Your task to perform on an android device: delete the emails in spam in the gmail app Image 0: 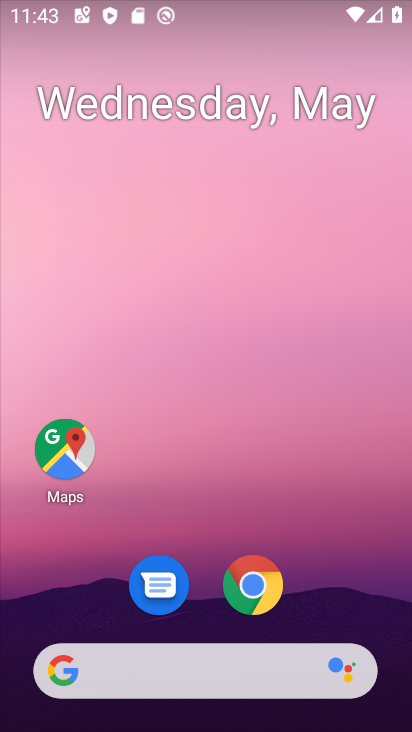
Step 0: drag from (224, 499) to (265, 38)
Your task to perform on an android device: delete the emails in spam in the gmail app Image 1: 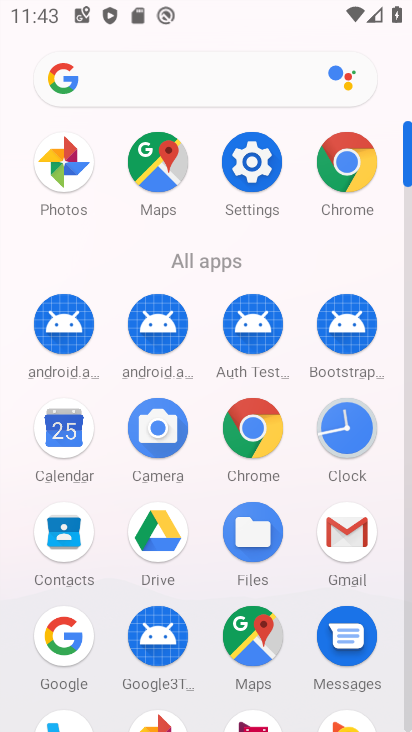
Step 1: drag from (201, 481) to (210, 208)
Your task to perform on an android device: delete the emails in spam in the gmail app Image 2: 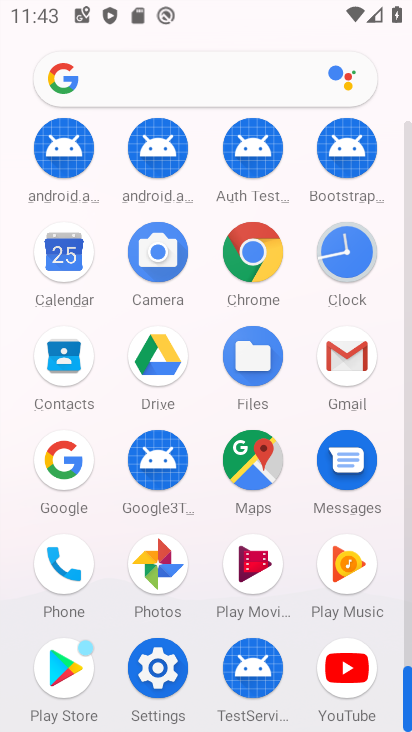
Step 2: click (337, 352)
Your task to perform on an android device: delete the emails in spam in the gmail app Image 3: 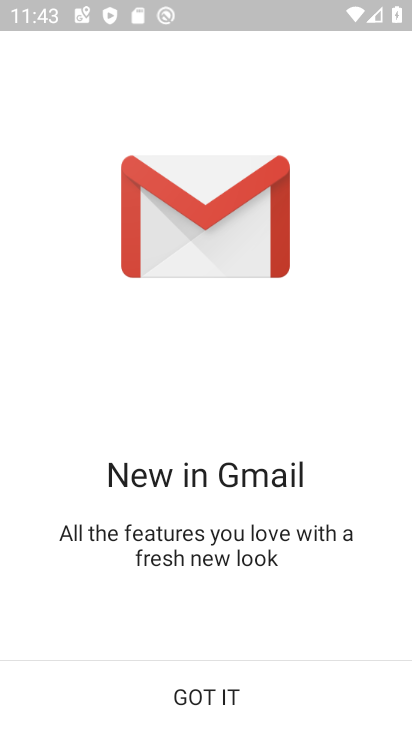
Step 3: click (250, 685)
Your task to perform on an android device: delete the emails in spam in the gmail app Image 4: 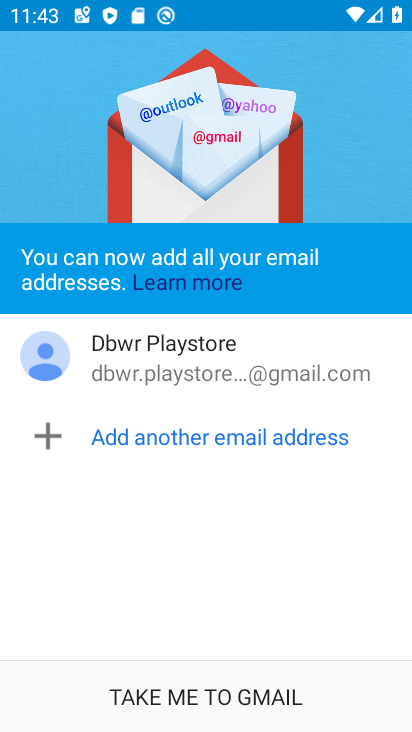
Step 4: click (250, 685)
Your task to perform on an android device: delete the emails in spam in the gmail app Image 5: 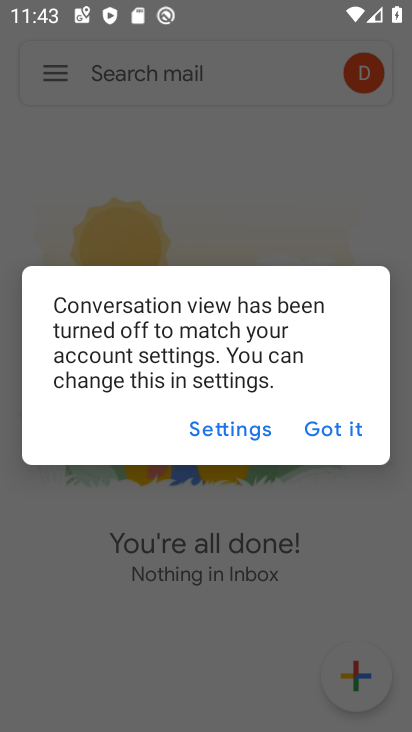
Step 5: click (348, 431)
Your task to perform on an android device: delete the emails in spam in the gmail app Image 6: 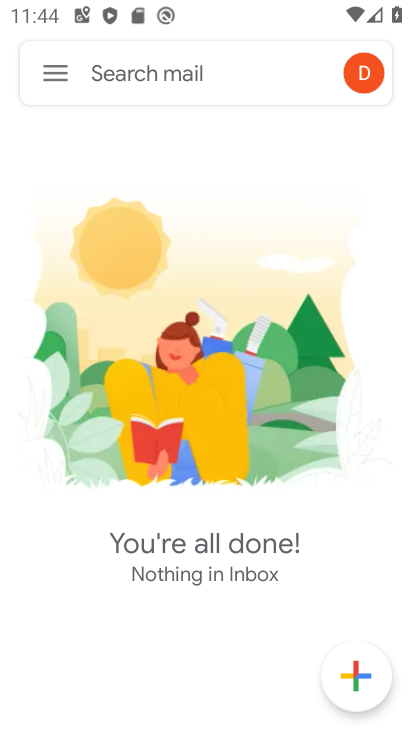
Step 6: click (56, 71)
Your task to perform on an android device: delete the emails in spam in the gmail app Image 7: 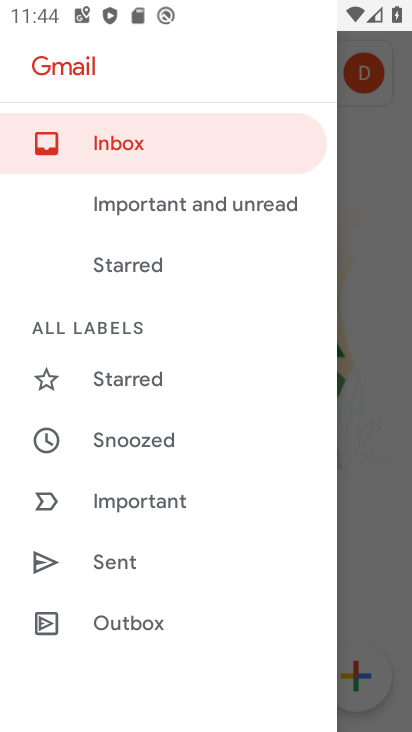
Step 7: click (372, 351)
Your task to perform on an android device: delete the emails in spam in the gmail app Image 8: 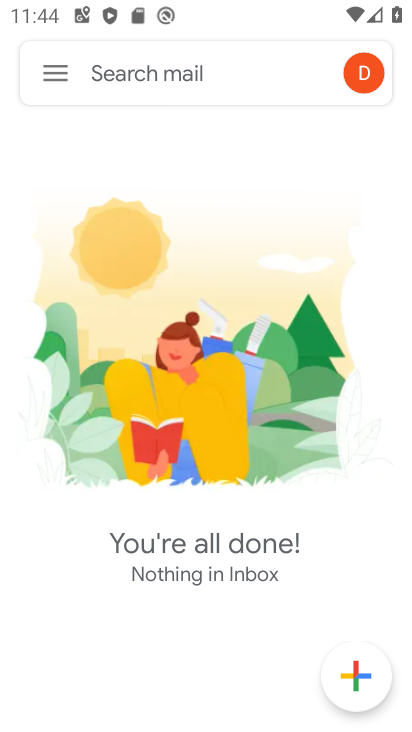
Step 8: click (52, 72)
Your task to perform on an android device: delete the emails in spam in the gmail app Image 9: 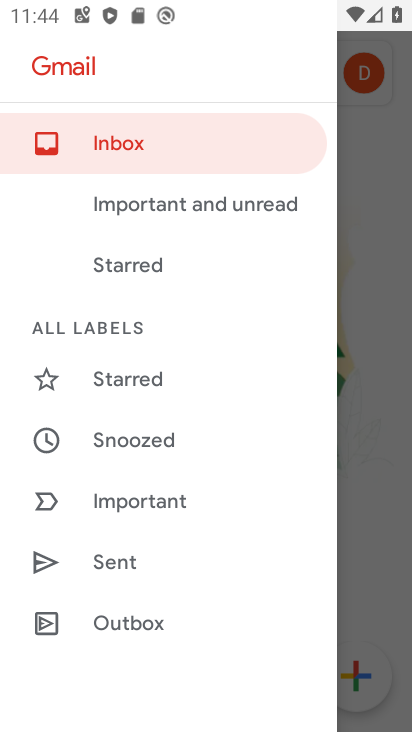
Step 9: drag from (192, 567) to (248, 94)
Your task to perform on an android device: delete the emails in spam in the gmail app Image 10: 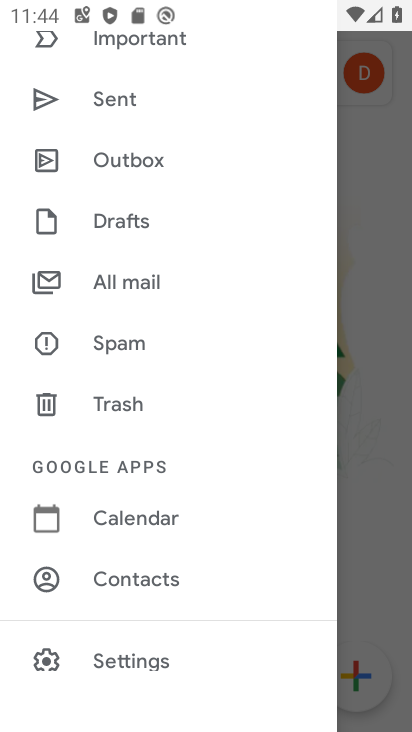
Step 10: click (129, 334)
Your task to perform on an android device: delete the emails in spam in the gmail app Image 11: 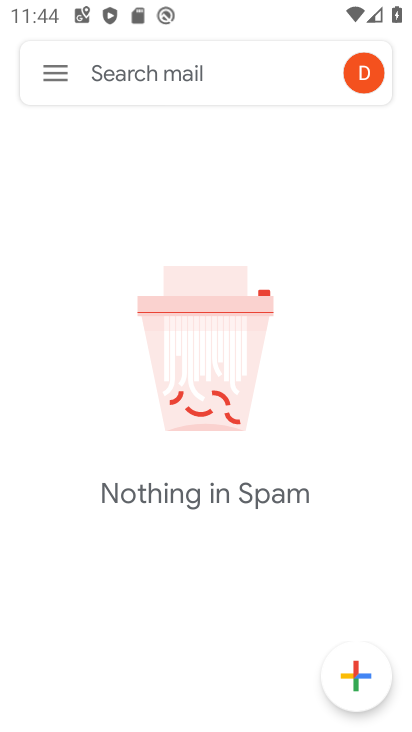
Step 11: task complete